Your task to perform on an android device: Do I have any events tomorrow? Image 0: 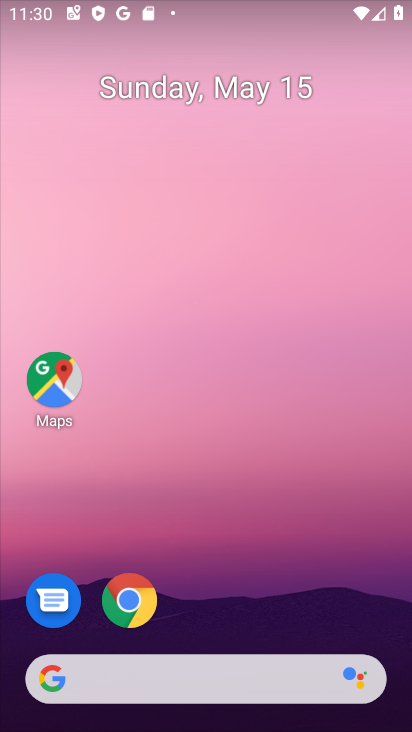
Step 0: drag from (210, 669) to (192, 64)
Your task to perform on an android device: Do I have any events tomorrow? Image 1: 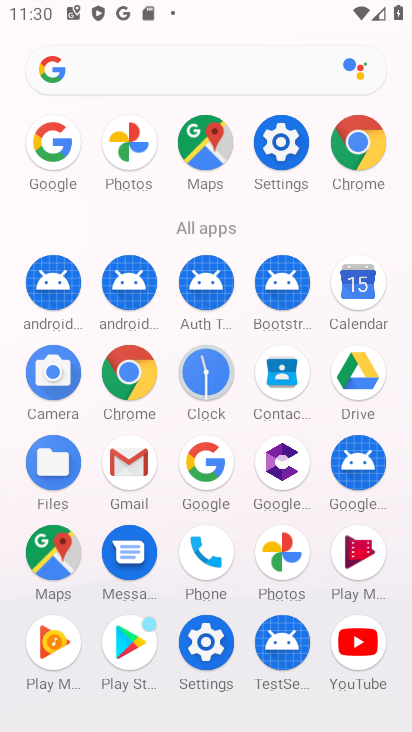
Step 1: click (361, 286)
Your task to perform on an android device: Do I have any events tomorrow? Image 2: 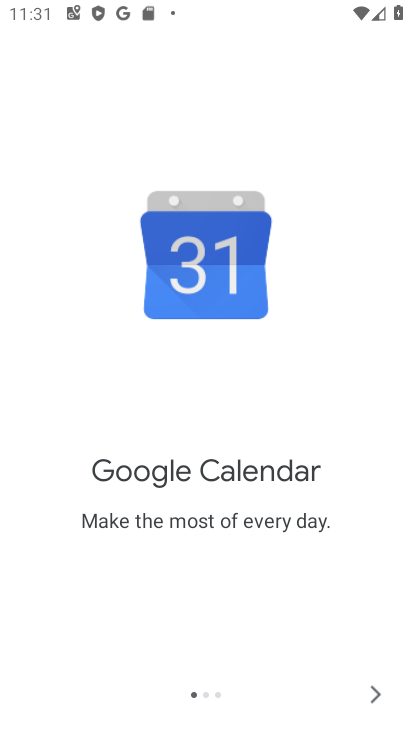
Step 2: click (363, 689)
Your task to perform on an android device: Do I have any events tomorrow? Image 3: 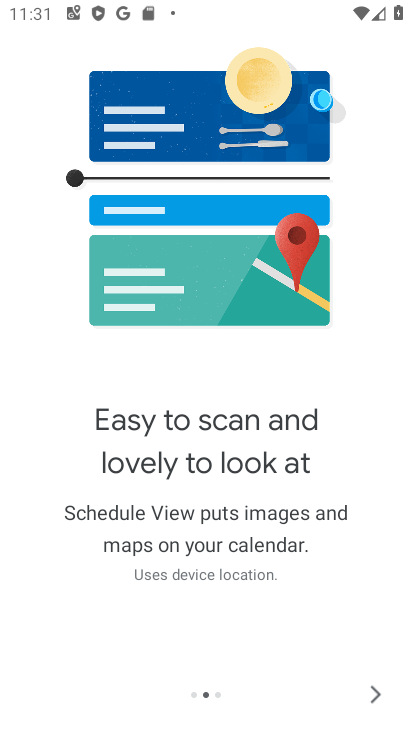
Step 3: click (363, 689)
Your task to perform on an android device: Do I have any events tomorrow? Image 4: 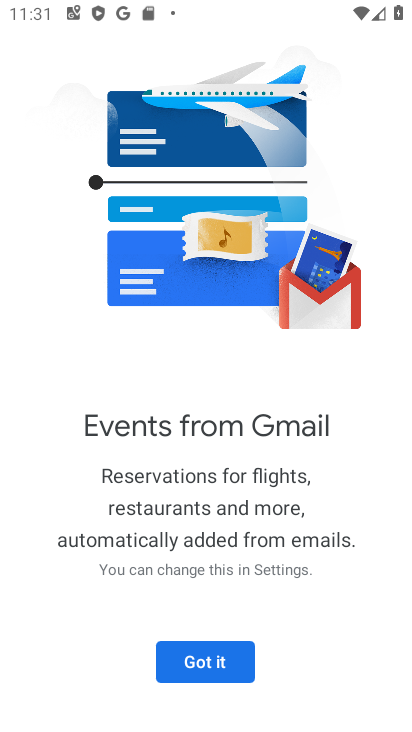
Step 4: click (200, 672)
Your task to perform on an android device: Do I have any events tomorrow? Image 5: 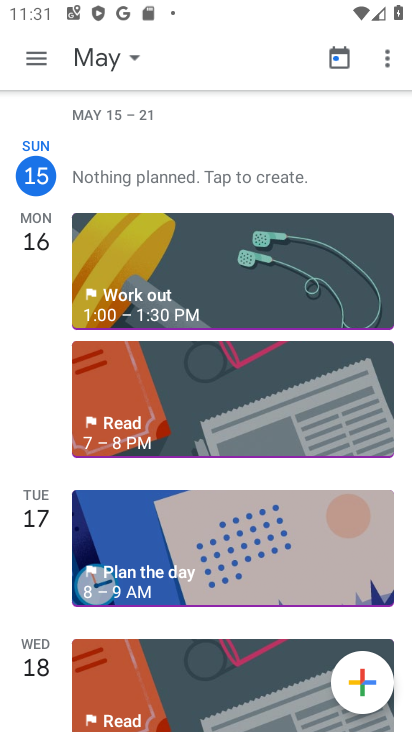
Step 5: task complete